Your task to perform on an android device: Go to settings Image 0: 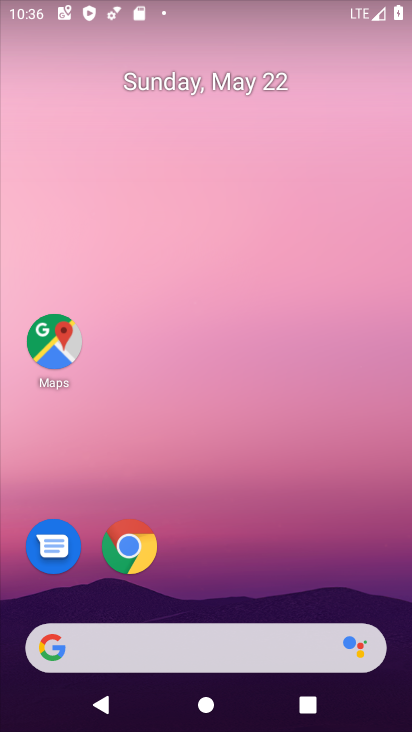
Step 0: drag from (195, 569) to (141, 19)
Your task to perform on an android device: Go to settings Image 1: 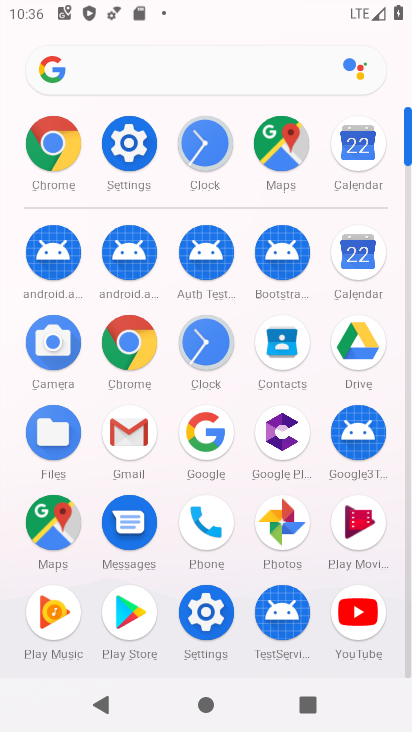
Step 1: click (131, 169)
Your task to perform on an android device: Go to settings Image 2: 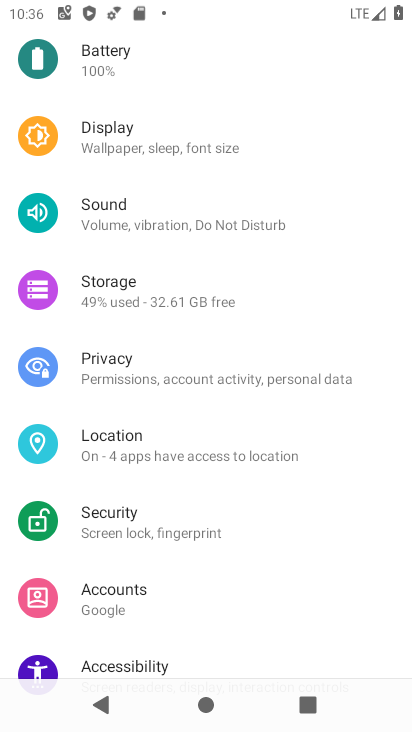
Step 2: task complete